Your task to perform on an android device: Go to Amazon Image 0: 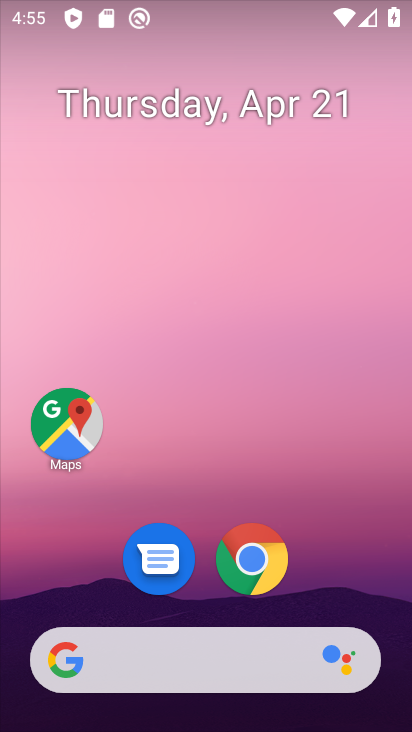
Step 0: drag from (343, 537) to (360, 204)
Your task to perform on an android device: Go to Amazon Image 1: 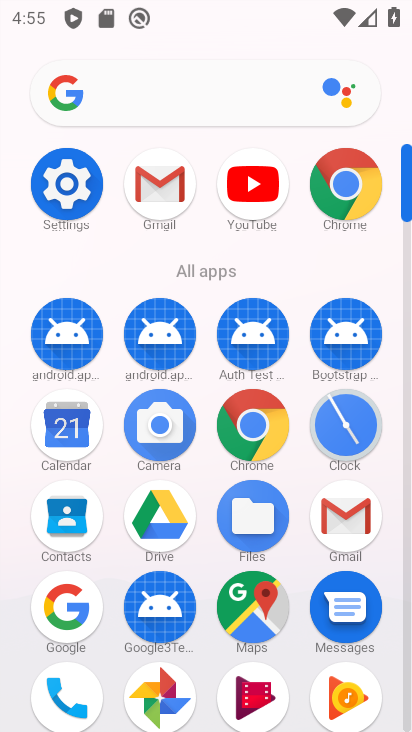
Step 1: click (360, 205)
Your task to perform on an android device: Go to Amazon Image 2: 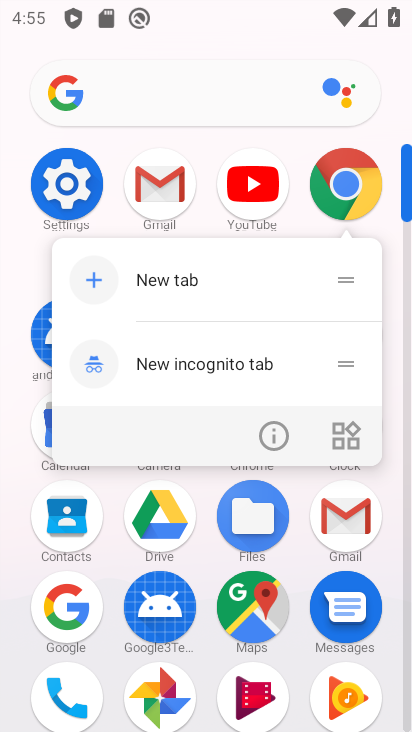
Step 2: click (360, 205)
Your task to perform on an android device: Go to Amazon Image 3: 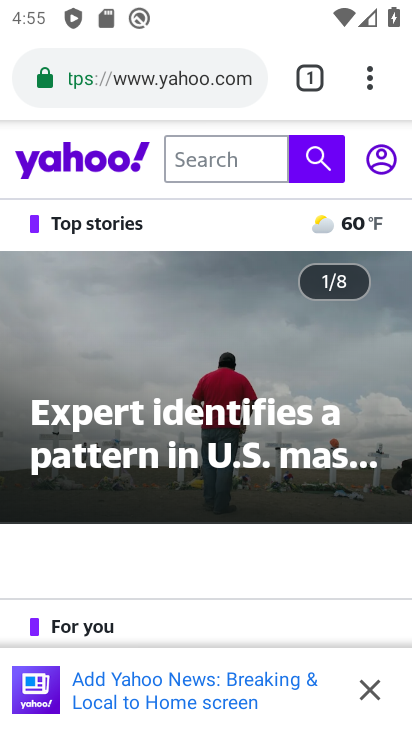
Step 3: click (188, 78)
Your task to perform on an android device: Go to Amazon Image 4: 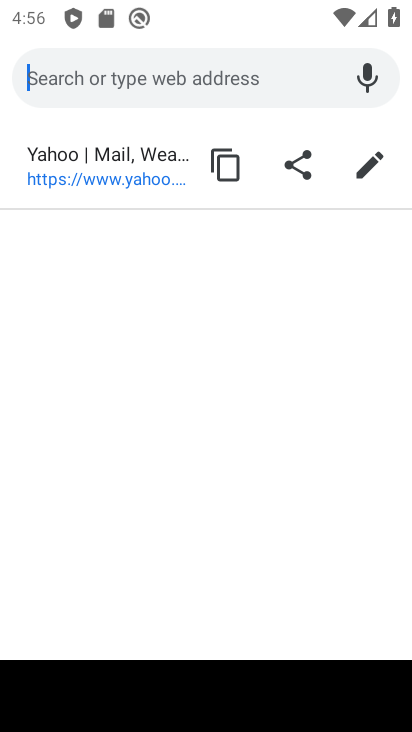
Step 4: type "amazon"
Your task to perform on an android device: Go to Amazon Image 5: 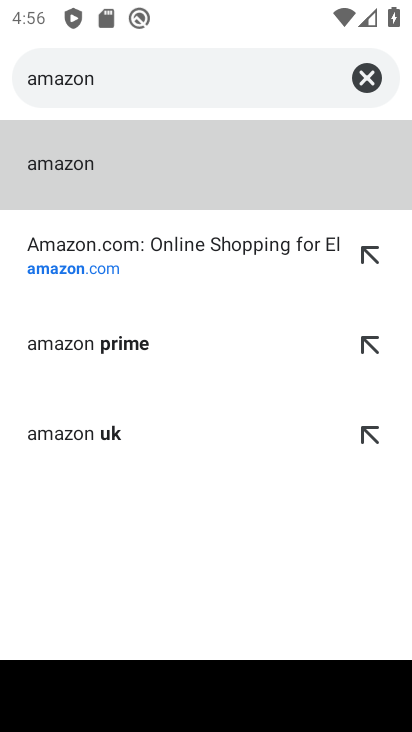
Step 5: click (55, 169)
Your task to perform on an android device: Go to Amazon Image 6: 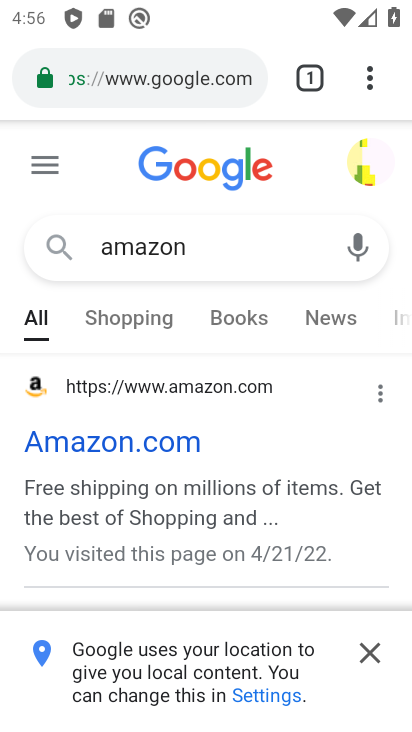
Step 6: click (155, 458)
Your task to perform on an android device: Go to Amazon Image 7: 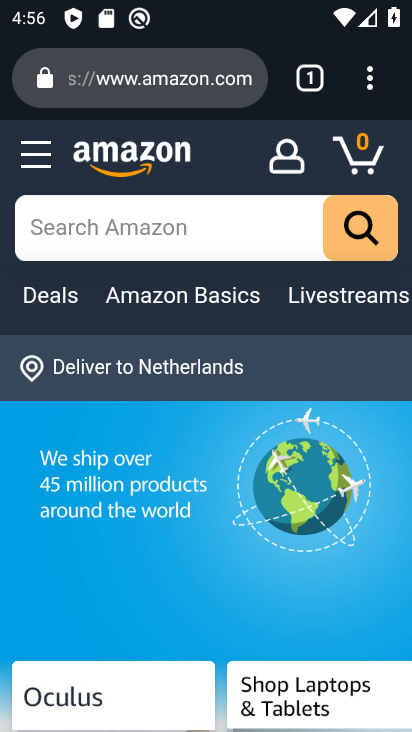
Step 7: task complete